Your task to perform on an android device: turn on translation in the chrome app Image 0: 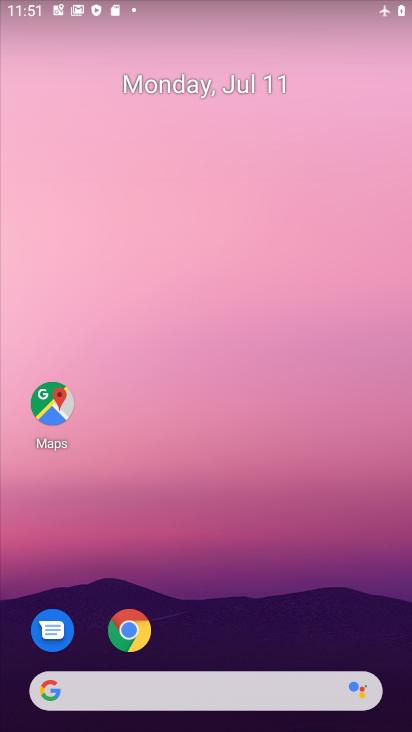
Step 0: drag from (216, 466) to (279, 214)
Your task to perform on an android device: turn on translation in the chrome app Image 1: 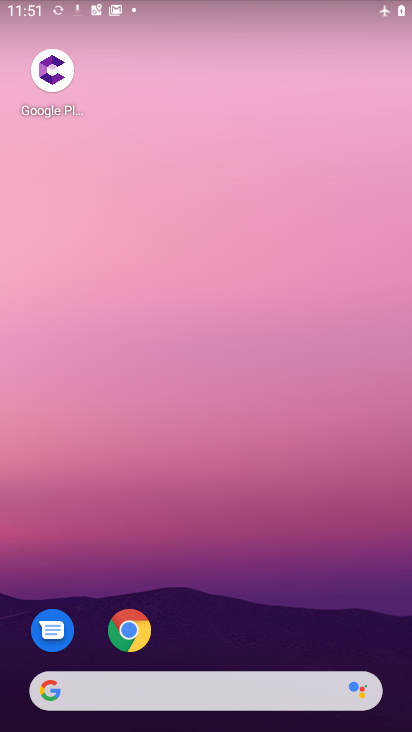
Step 1: click (130, 632)
Your task to perform on an android device: turn on translation in the chrome app Image 2: 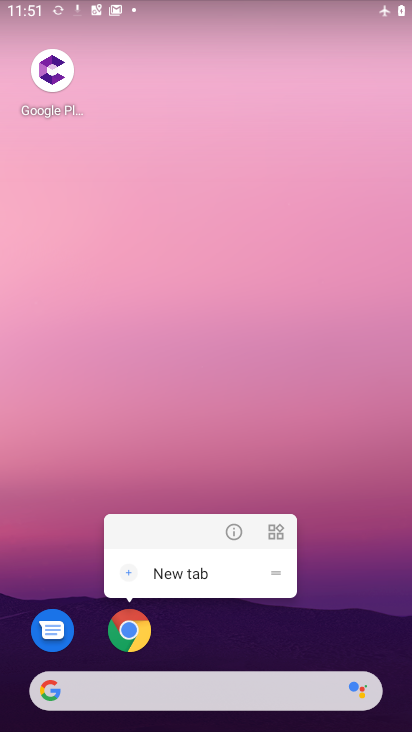
Step 2: click (135, 630)
Your task to perform on an android device: turn on translation in the chrome app Image 3: 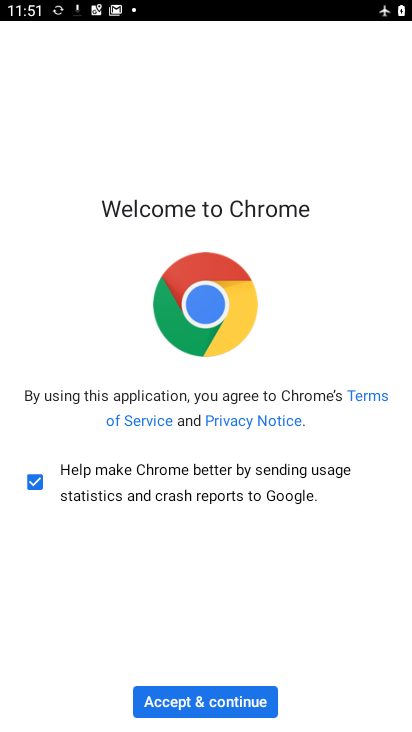
Step 3: click (217, 701)
Your task to perform on an android device: turn on translation in the chrome app Image 4: 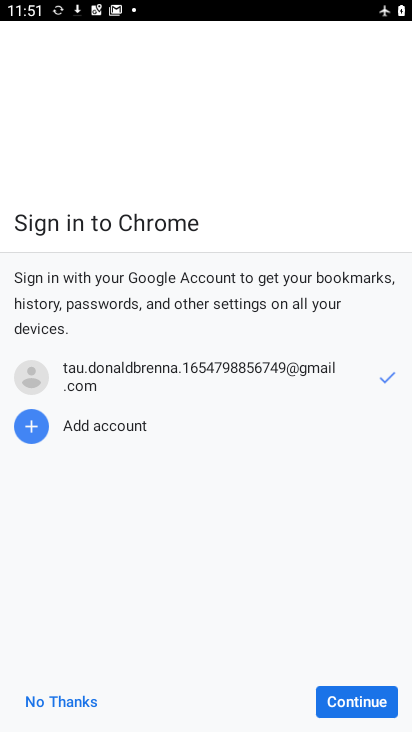
Step 4: click (309, 695)
Your task to perform on an android device: turn on translation in the chrome app Image 5: 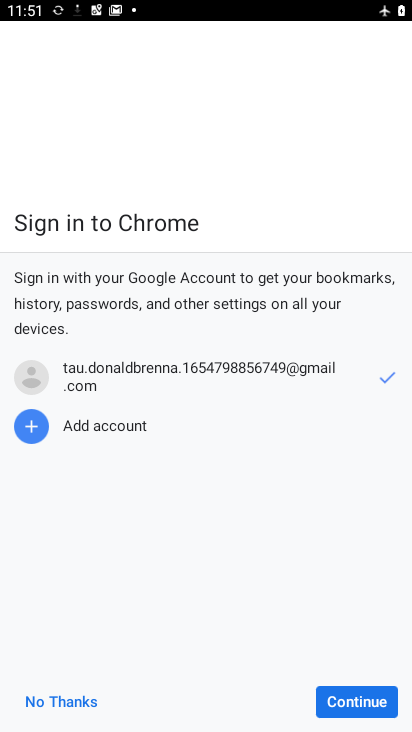
Step 5: click (349, 705)
Your task to perform on an android device: turn on translation in the chrome app Image 6: 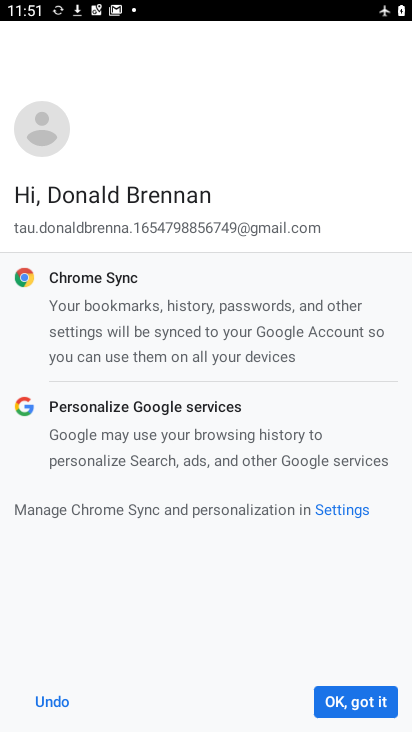
Step 6: click (350, 705)
Your task to perform on an android device: turn on translation in the chrome app Image 7: 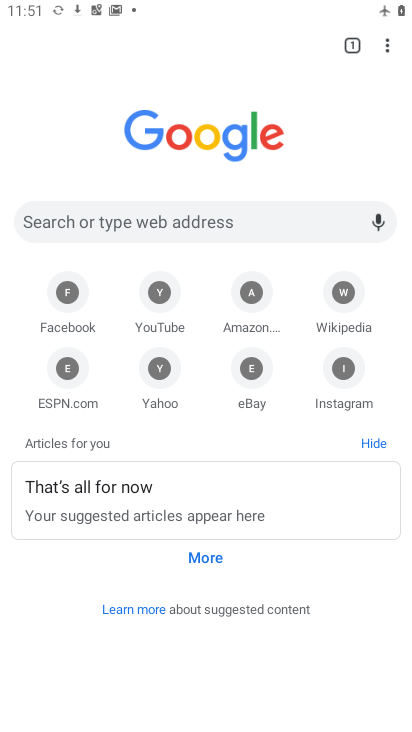
Step 7: drag from (384, 34) to (266, 371)
Your task to perform on an android device: turn on translation in the chrome app Image 8: 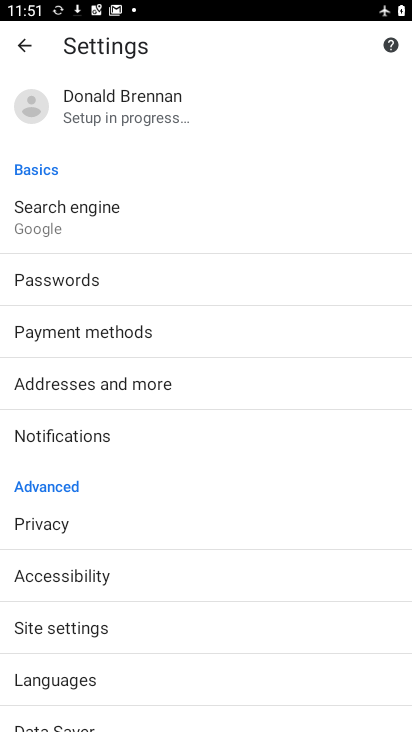
Step 8: drag from (125, 620) to (186, 349)
Your task to perform on an android device: turn on translation in the chrome app Image 9: 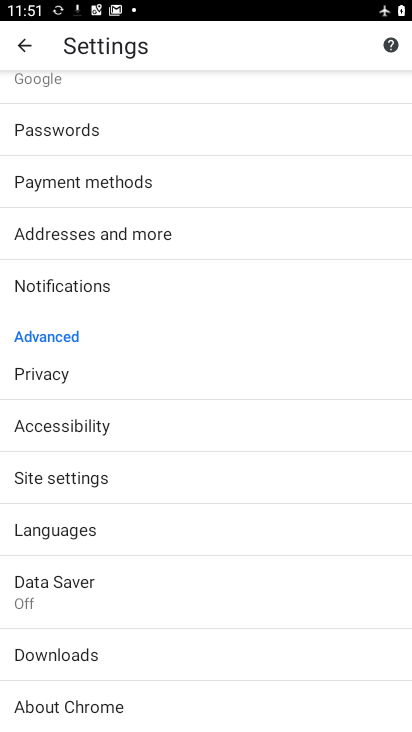
Step 9: click (114, 531)
Your task to perform on an android device: turn on translation in the chrome app Image 10: 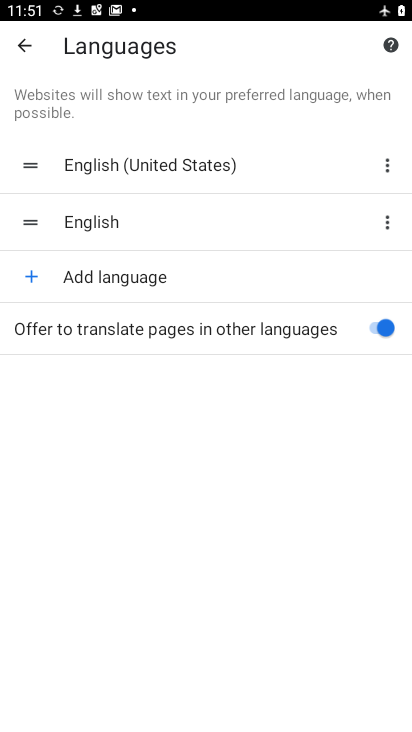
Step 10: task complete